Your task to perform on an android device: change keyboard looks Image 0: 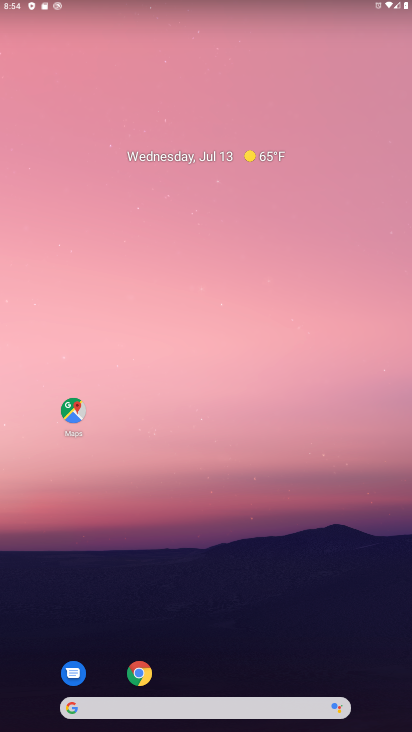
Step 0: drag from (191, 701) to (230, 248)
Your task to perform on an android device: change keyboard looks Image 1: 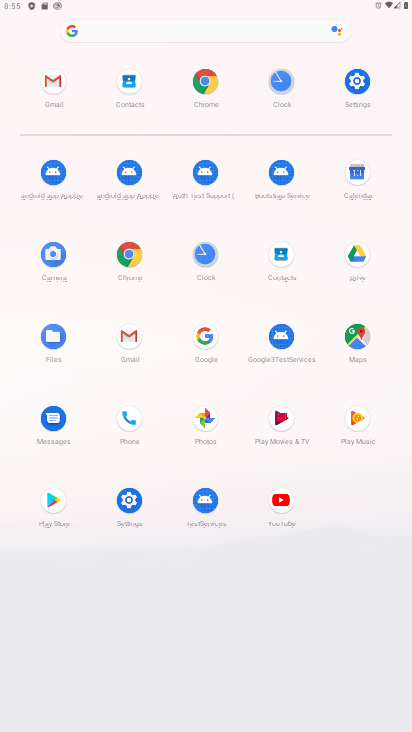
Step 1: click (359, 81)
Your task to perform on an android device: change keyboard looks Image 2: 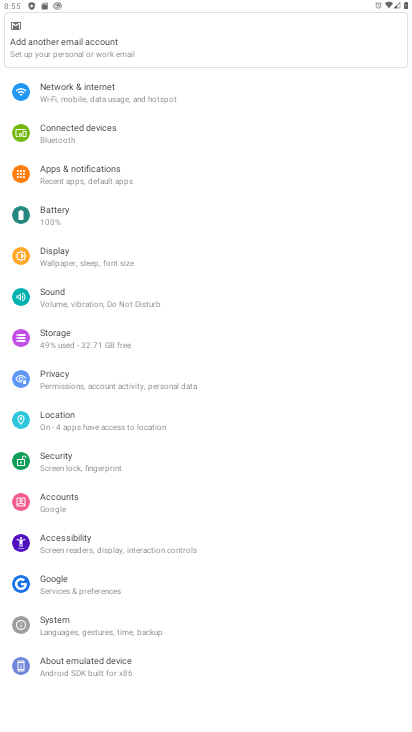
Step 2: click (68, 630)
Your task to perform on an android device: change keyboard looks Image 3: 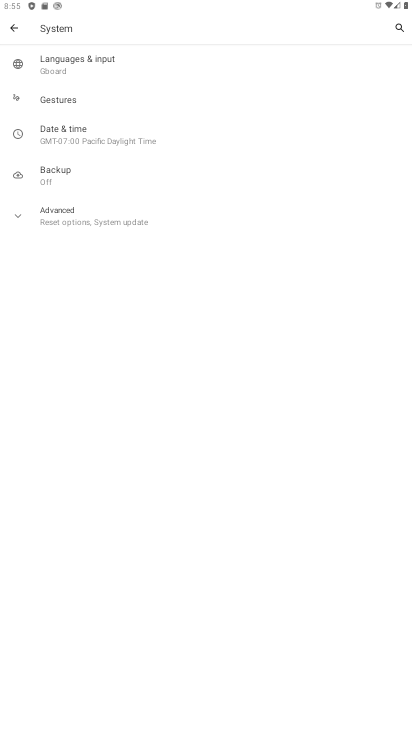
Step 3: click (81, 61)
Your task to perform on an android device: change keyboard looks Image 4: 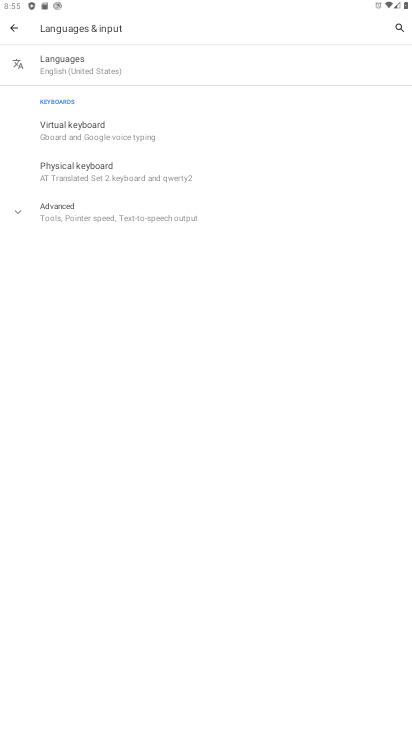
Step 4: click (97, 130)
Your task to perform on an android device: change keyboard looks Image 5: 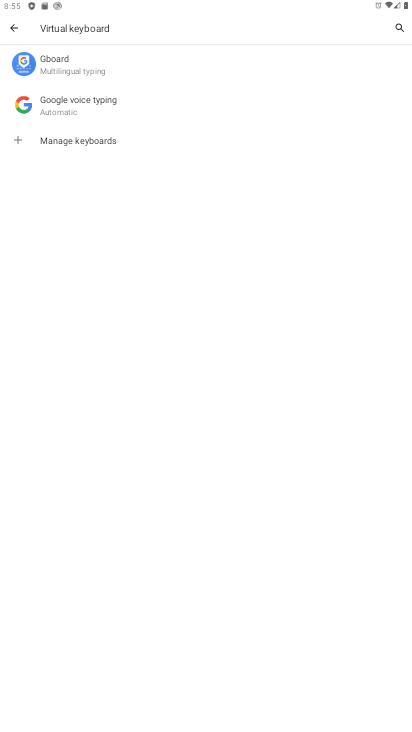
Step 5: click (76, 69)
Your task to perform on an android device: change keyboard looks Image 6: 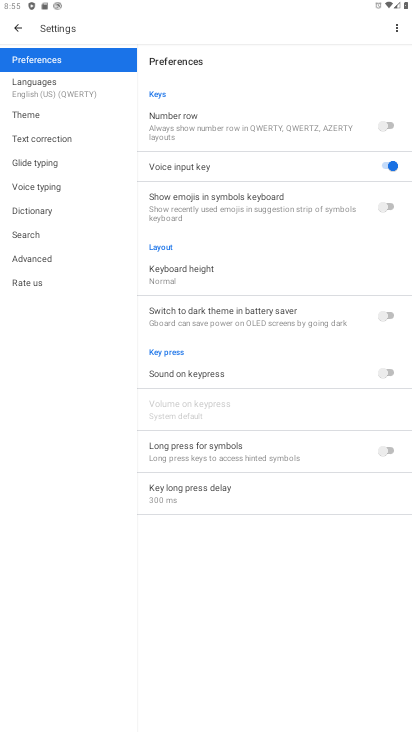
Step 6: click (40, 113)
Your task to perform on an android device: change keyboard looks Image 7: 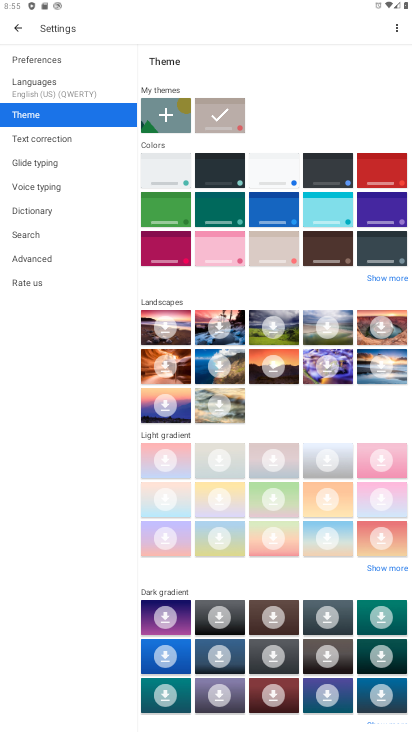
Step 7: click (312, 251)
Your task to perform on an android device: change keyboard looks Image 8: 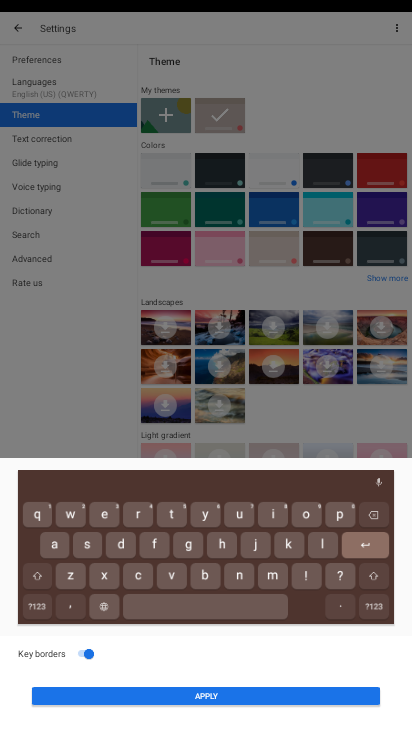
Step 8: click (200, 693)
Your task to perform on an android device: change keyboard looks Image 9: 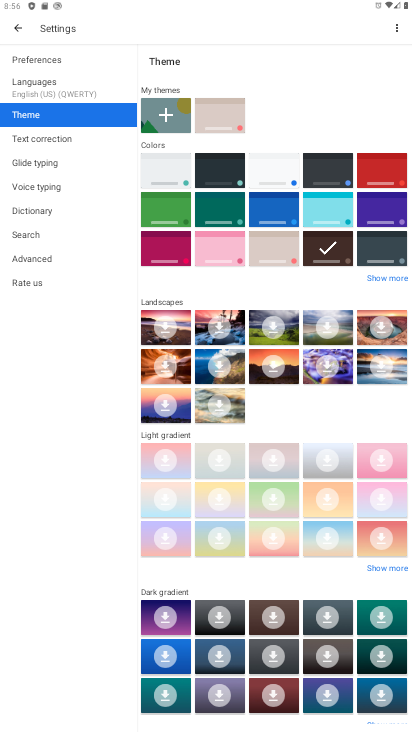
Step 9: task complete